Your task to perform on an android device: Search for sushi restaurants on Maps Image 0: 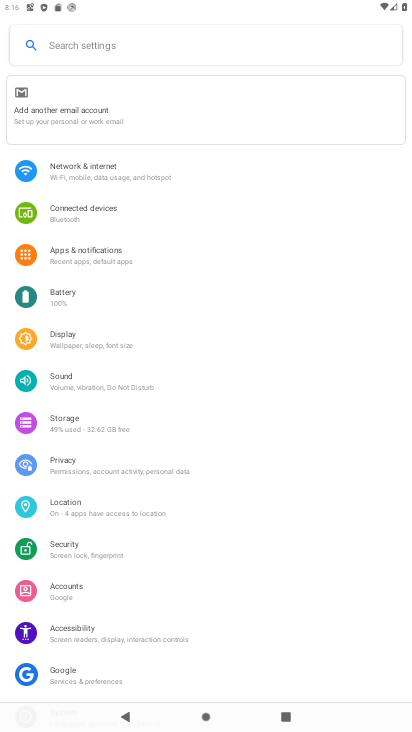
Step 0: press home button
Your task to perform on an android device: Search for sushi restaurants on Maps Image 1: 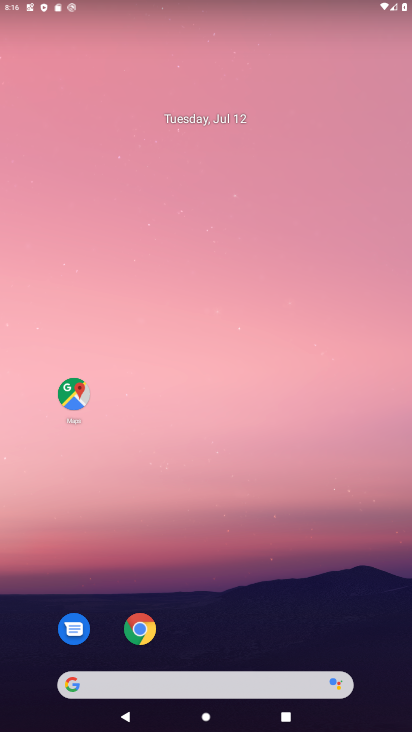
Step 1: click (60, 383)
Your task to perform on an android device: Search for sushi restaurants on Maps Image 2: 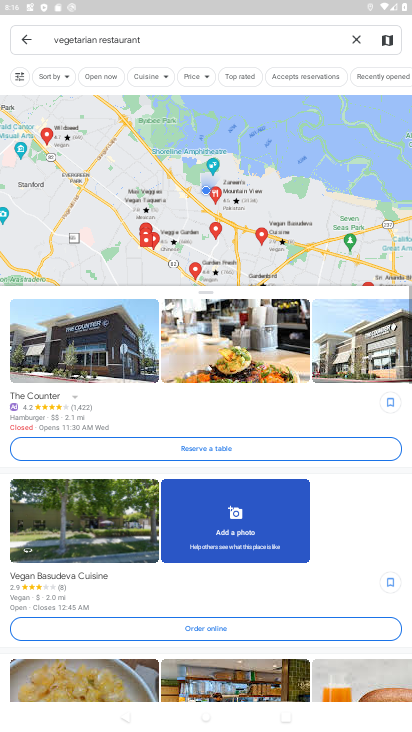
Step 2: click (350, 40)
Your task to perform on an android device: Search for sushi restaurants on Maps Image 3: 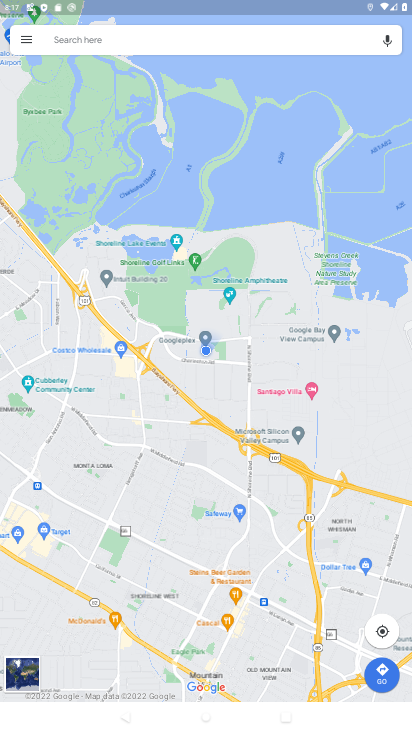
Step 3: click (190, 36)
Your task to perform on an android device: Search for sushi restaurants on Maps Image 4: 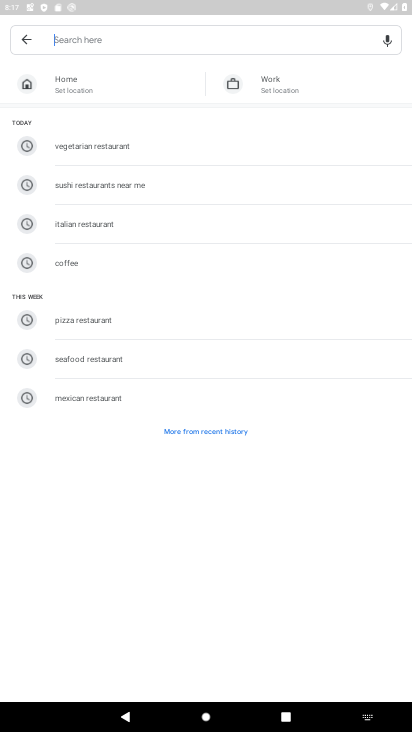
Step 4: type " sushi restaurants "
Your task to perform on an android device: Search for sushi restaurants on Maps Image 5: 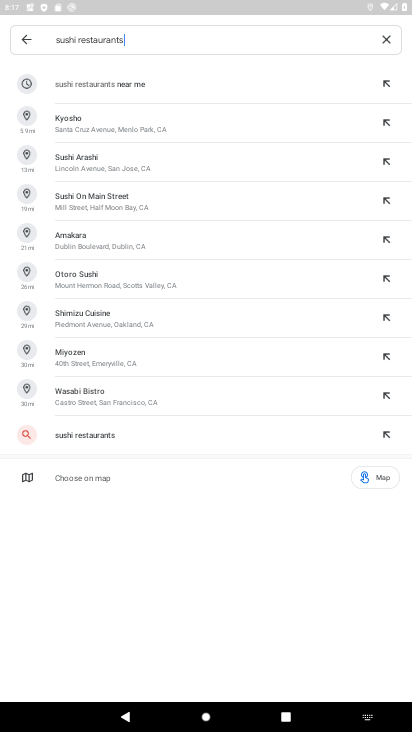
Step 5: click (104, 84)
Your task to perform on an android device: Search for sushi restaurants on Maps Image 6: 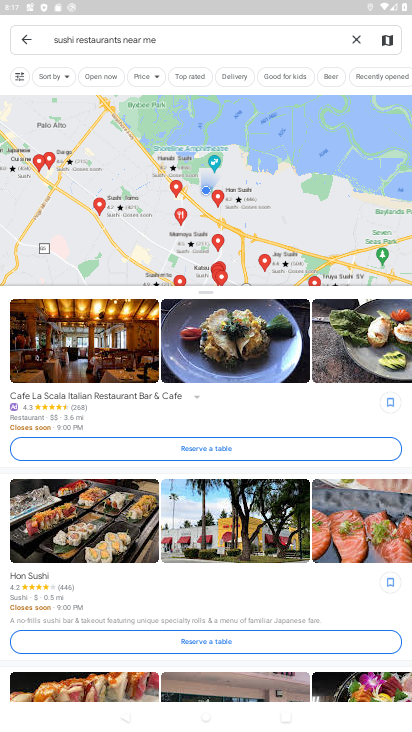
Step 6: task complete